Your task to perform on an android device: open app "Google Keep" Image 0: 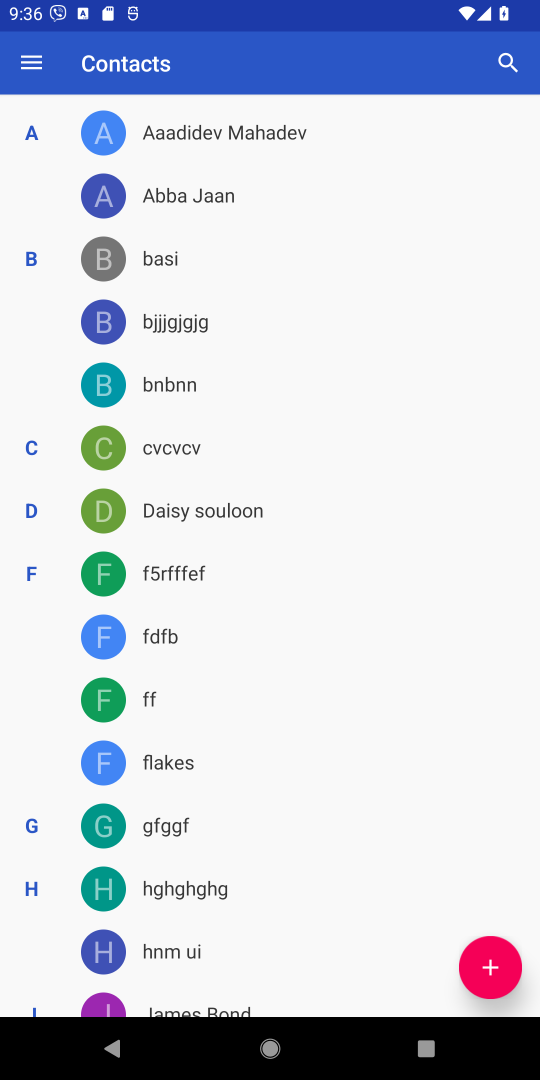
Step 0: press home button
Your task to perform on an android device: open app "Google Keep" Image 1: 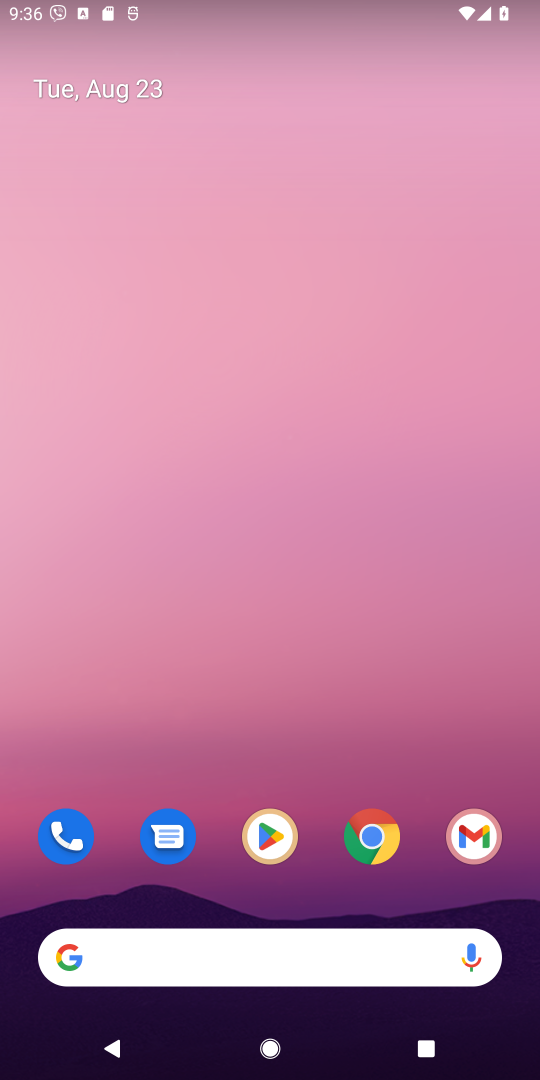
Step 1: click (283, 826)
Your task to perform on an android device: open app "Google Keep" Image 2: 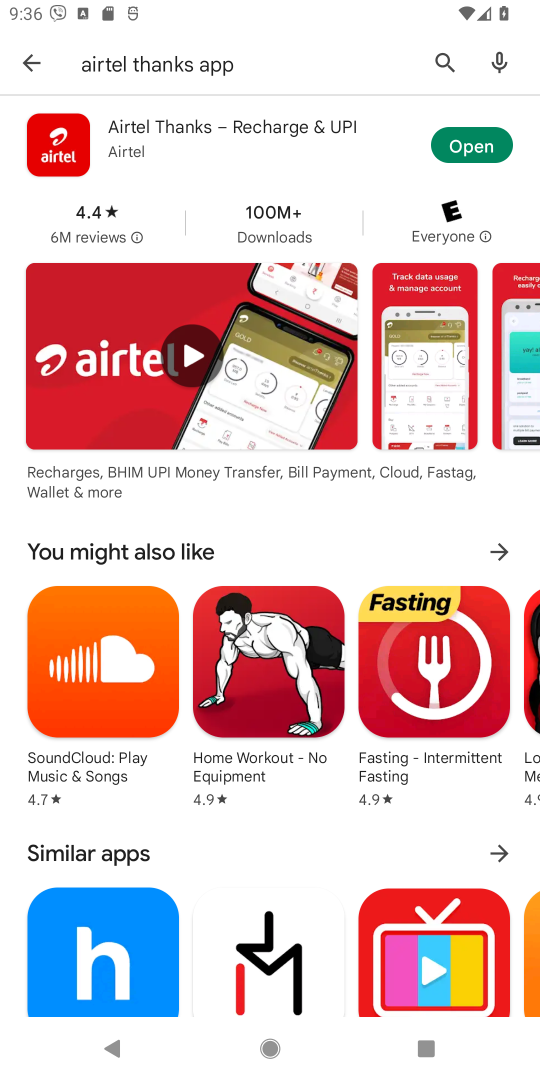
Step 2: click (444, 50)
Your task to perform on an android device: open app "Google Keep" Image 3: 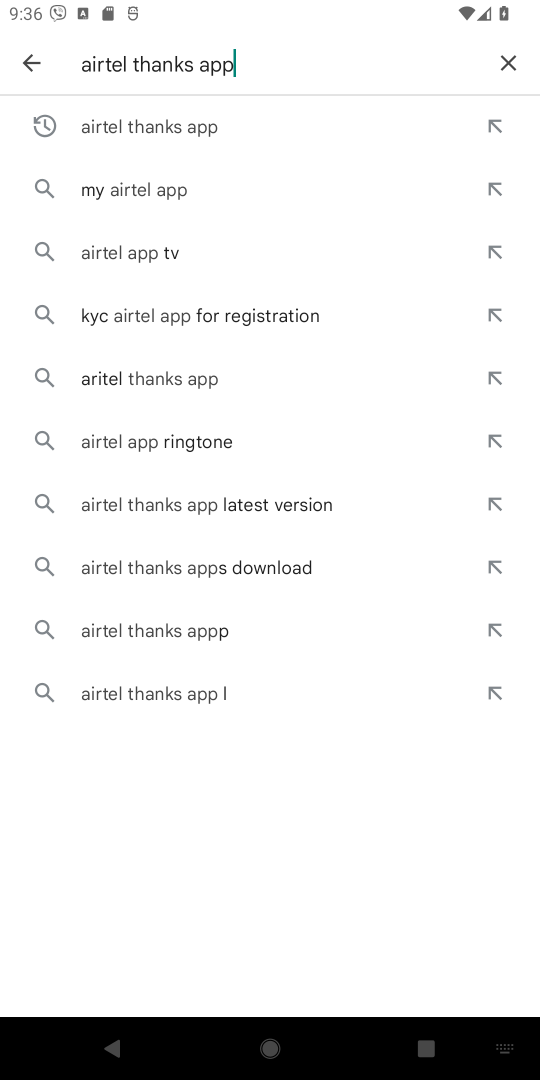
Step 3: click (509, 54)
Your task to perform on an android device: open app "Google Keep" Image 4: 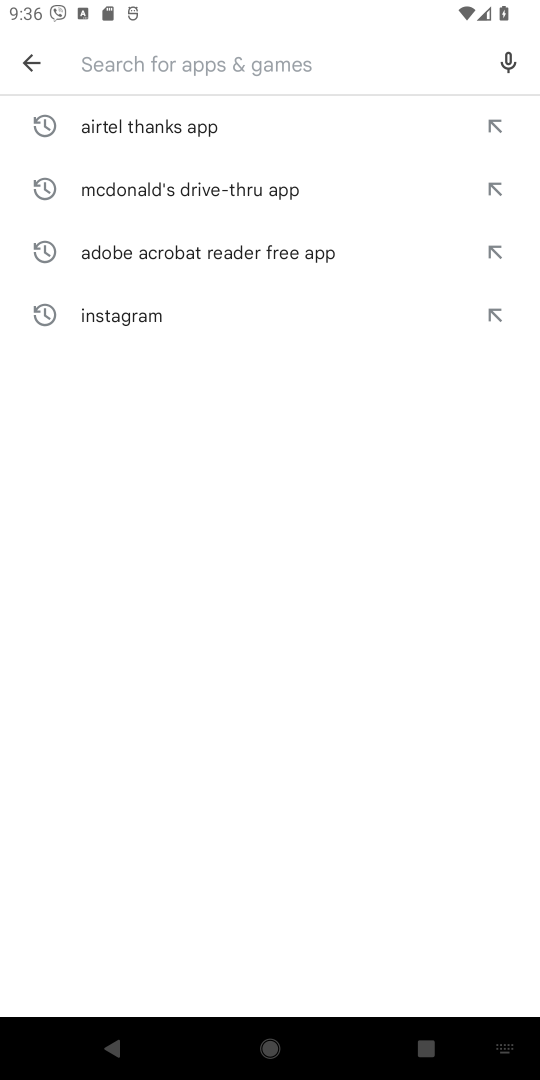
Step 4: type "Google Keep"
Your task to perform on an android device: open app "Google Keep" Image 5: 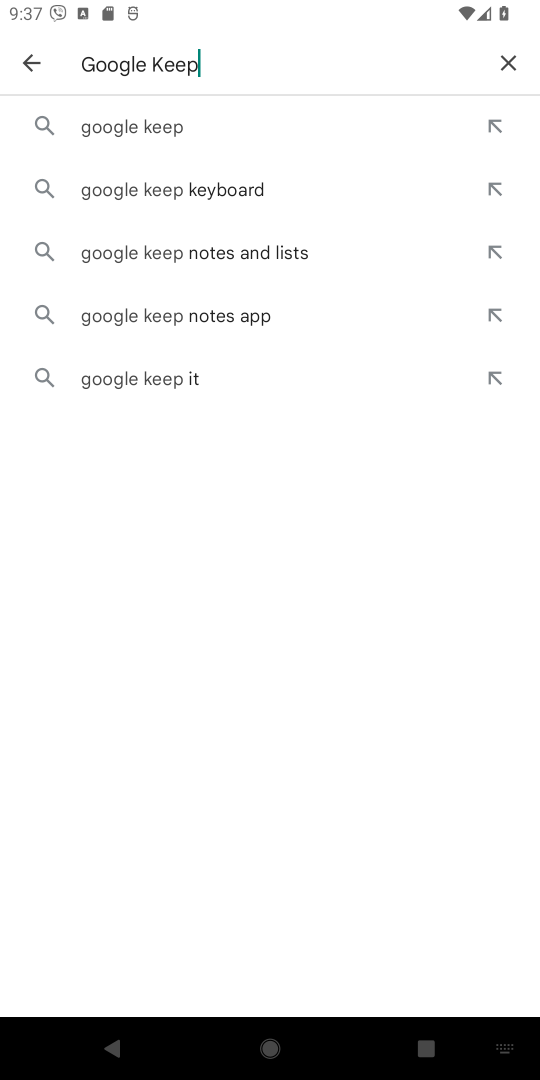
Step 5: click (156, 114)
Your task to perform on an android device: open app "Google Keep" Image 6: 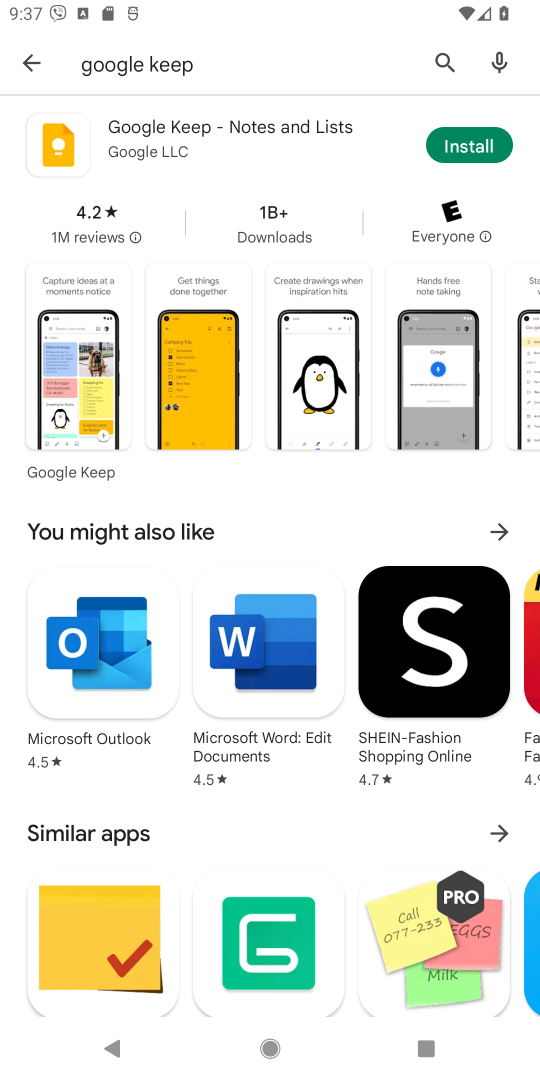
Step 6: task complete